Your task to perform on an android device: Open Android settings Image 0: 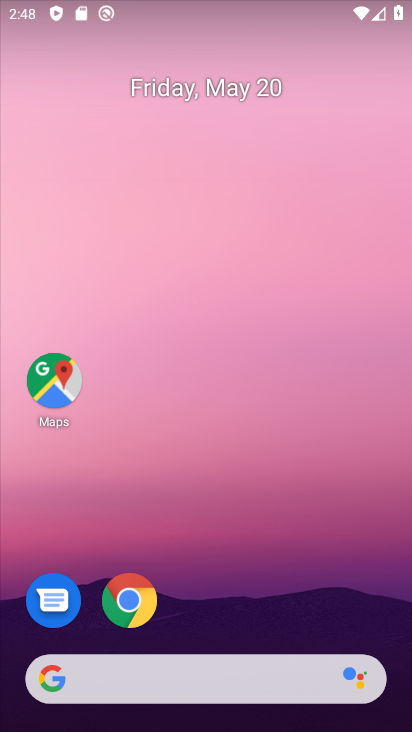
Step 0: drag from (245, 613) to (367, 36)
Your task to perform on an android device: Open Android settings Image 1: 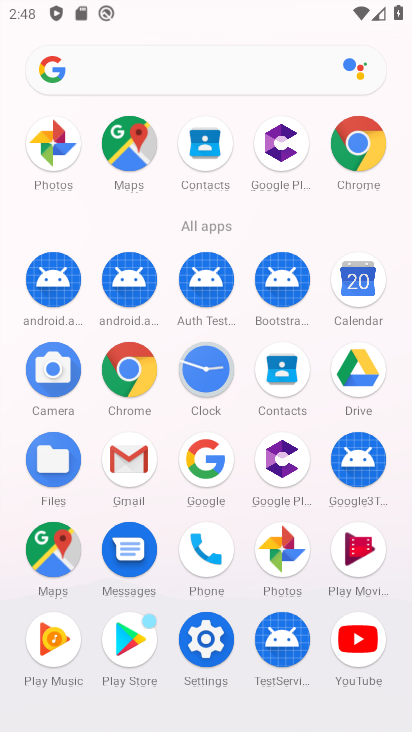
Step 1: click (217, 625)
Your task to perform on an android device: Open Android settings Image 2: 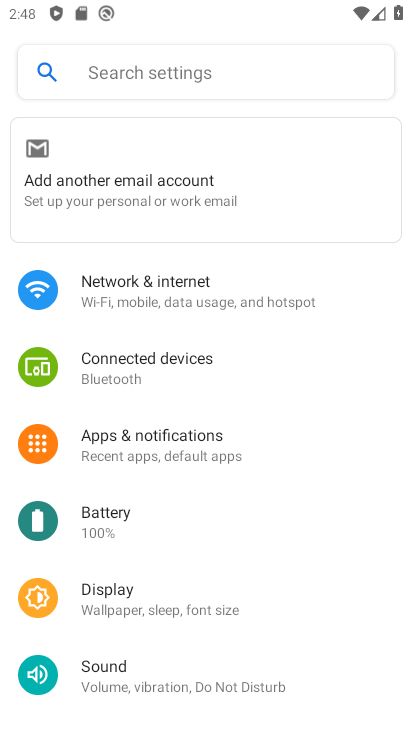
Step 2: task complete